Your task to perform on an android device: Open wifi settings Image 0: 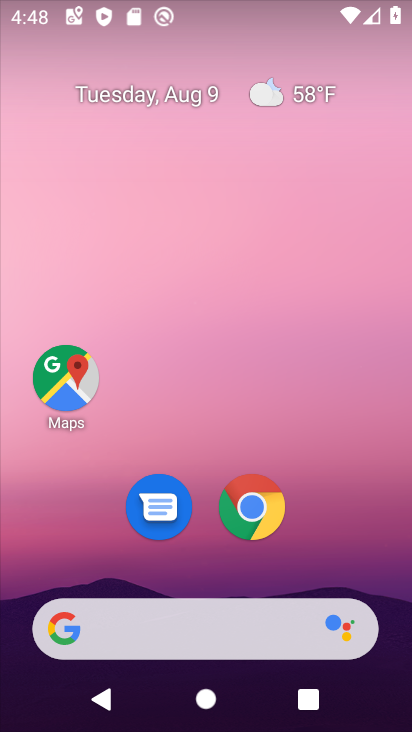
Step 0: drag from (341, 561) to (292, 56)
Your task to perform on an android device: Open wifi settings Image 1: 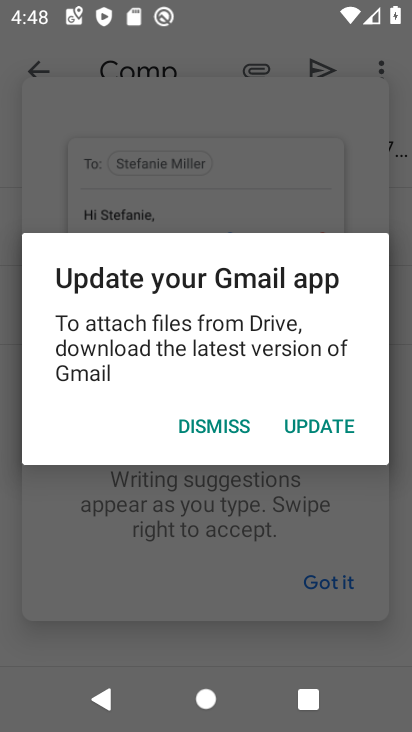
Step 1: press home button
Your task to perform on an android device: Open wifi settings Image 2: 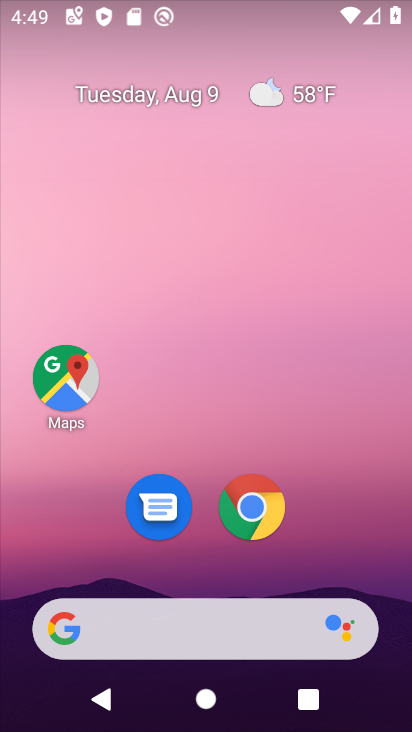
Step 2: drag from (323, 556) to (297, 65)
Your task to perform on an android device: Open wifi settings Image 3: 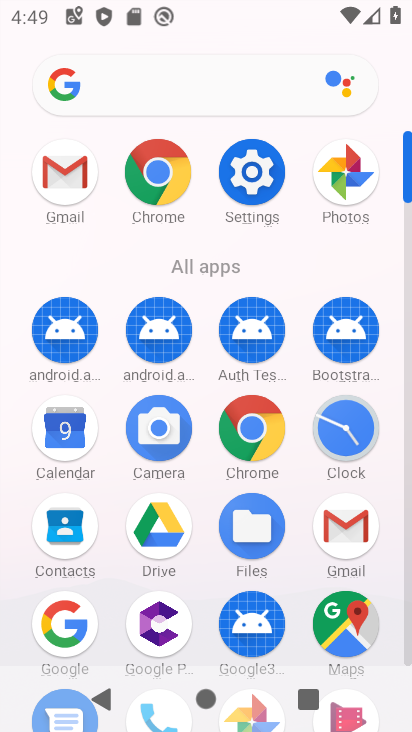
Step 3: click (256, 175)
Your task to perform on an android device: Open wifi settings Image 4: 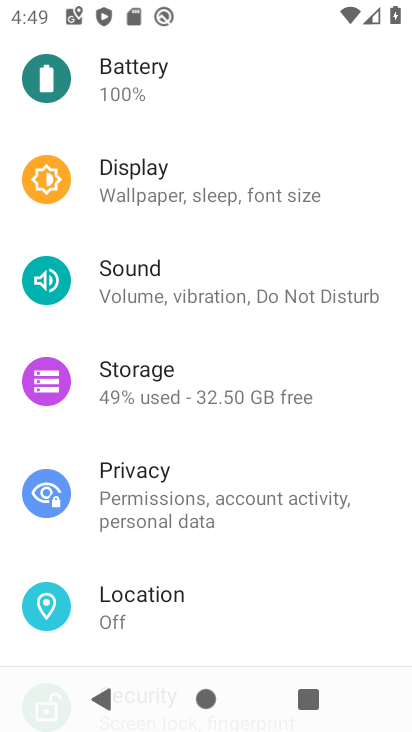
Step 4: drag from (145, 187) to (241, 673)
Your task to perform on an android device: Open wifi settings Image 5: 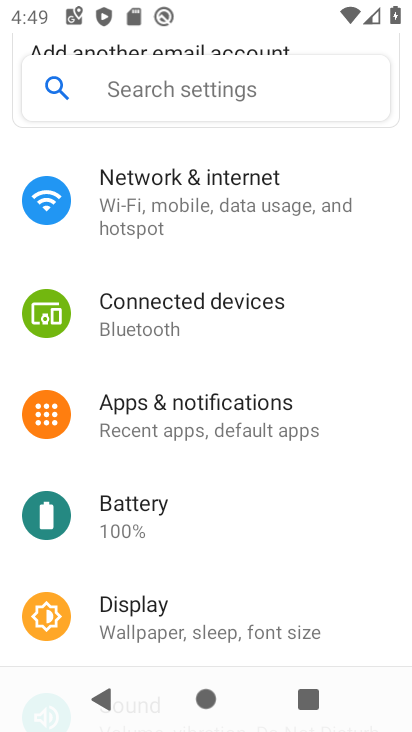
Step 5: click (220, 209)
Your task to perform on an android device: Open wifi settings Image 6: 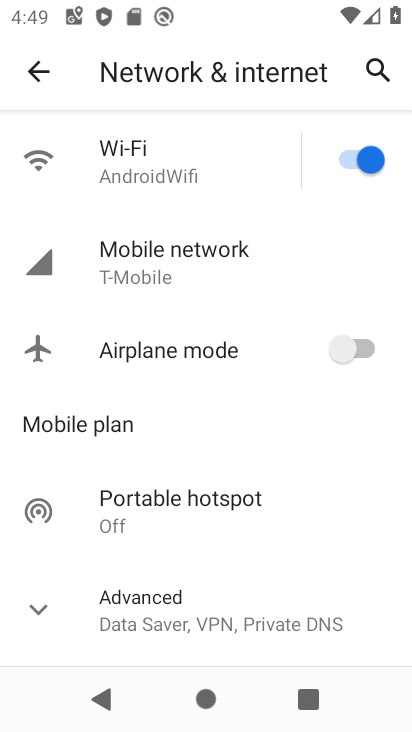
Step 6: click (134, 150)
Your task to perform on an android device: Open wifi settings Image 7: 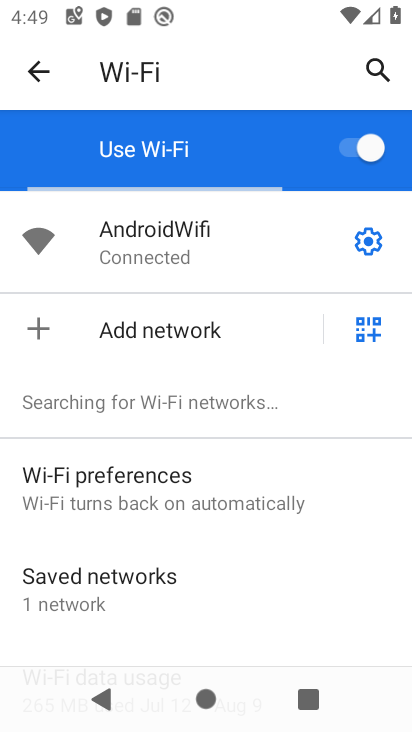
Step 7: task complete